Your task to perform on an android device: Go to privacy settings Image 0: 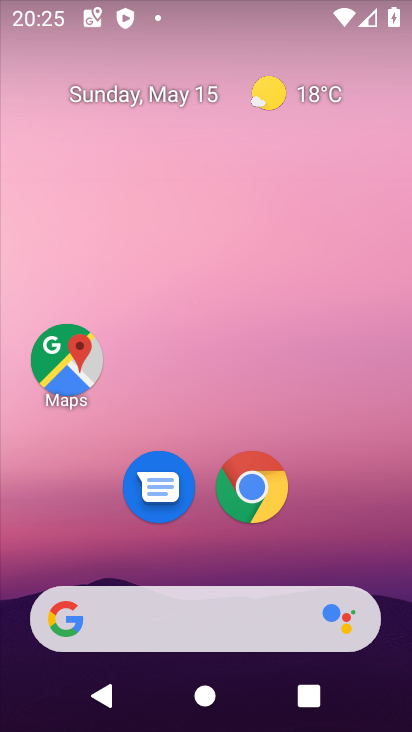
Step 0: drag from (390, 630) to (366, 283)
Your task to perform on an android device: Go to privacy settings Image 1: 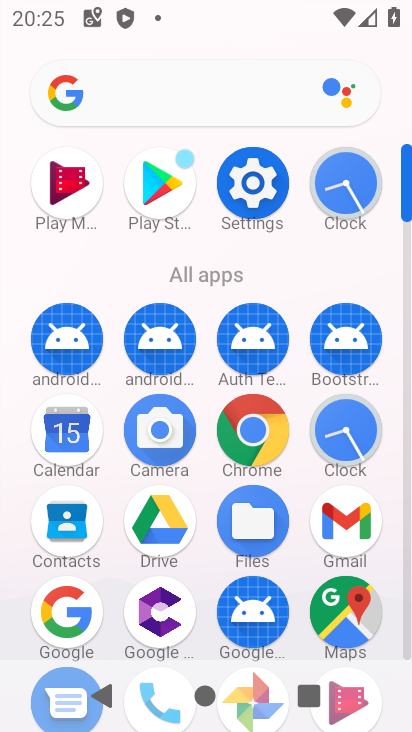
Step 1: click (256, 438)
Your task to perform on an android device: Go to privacy settings Image 2: 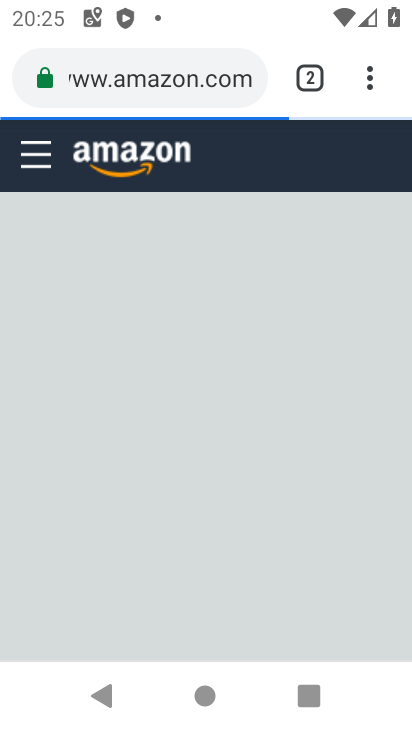
Step 2: click (364, 79)
Your task to perform on an android device: Go to privacy settings Image 3: 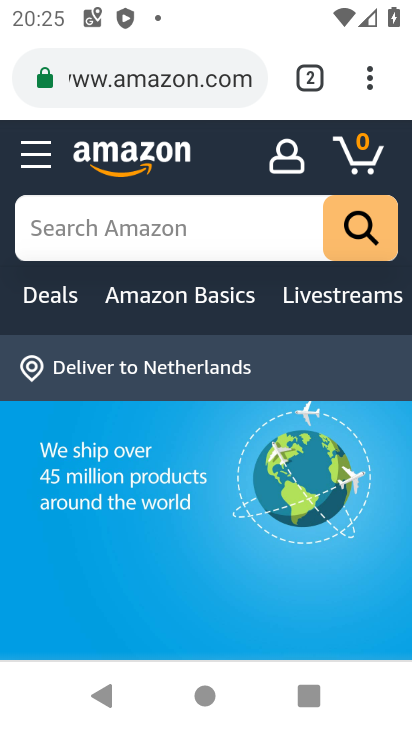
Step 3: click (371, 77)
Your task to perform on an android device: Go to privacy settings Image 4: 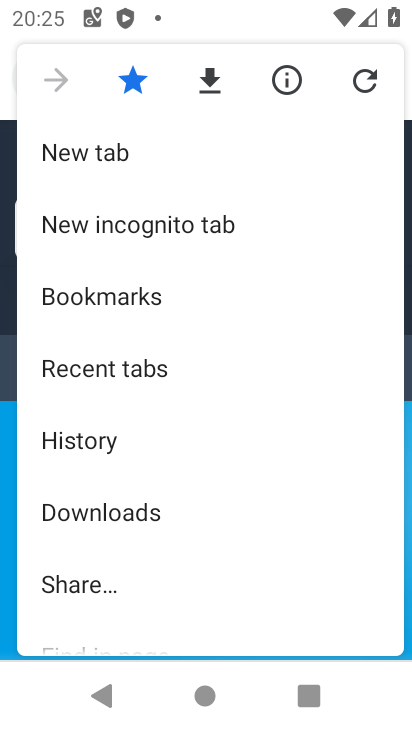
Step 4: drag from (277, 554) to (270, 289)
Your task to perform on an android device: Go to privacy settings Image 5: 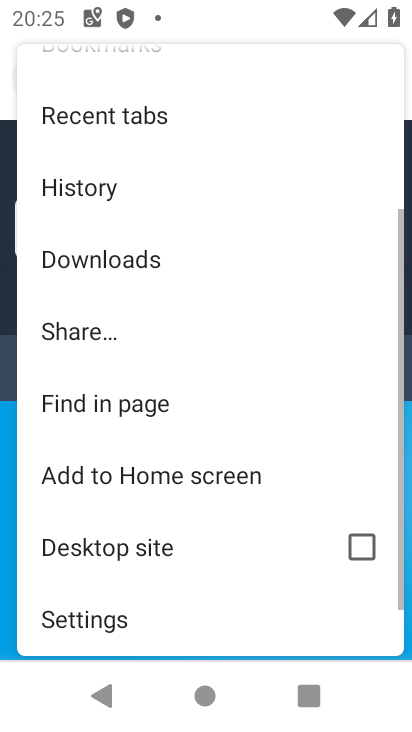
Step 5: drag from (243, 615) to (228, 358)
Your task to perform on an android device: Go to privacy settings Image 6: 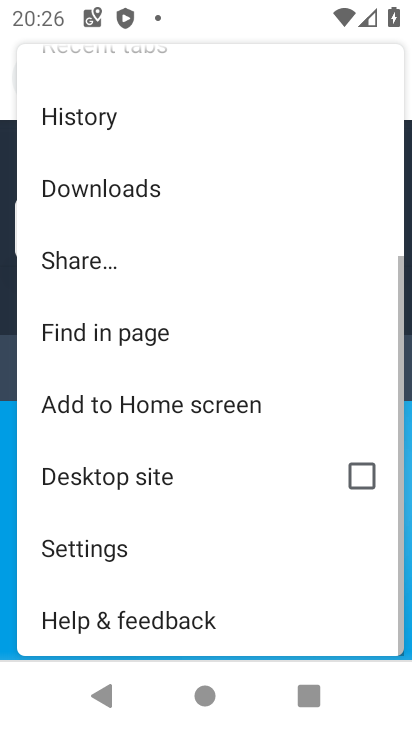
Step 6: click (70, 545)
Your task to perform on an android device: Go to privacy settings Image 7: 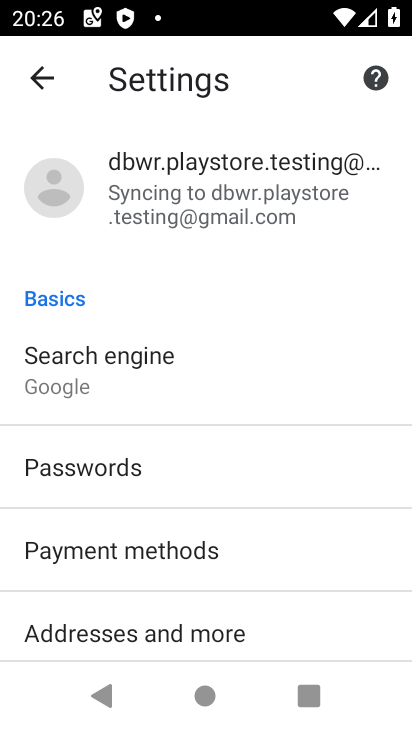
Step 7: drag from (321, 644) to (342, 459)
Your task to perform on an android device: Go to privacy settings Image 8: 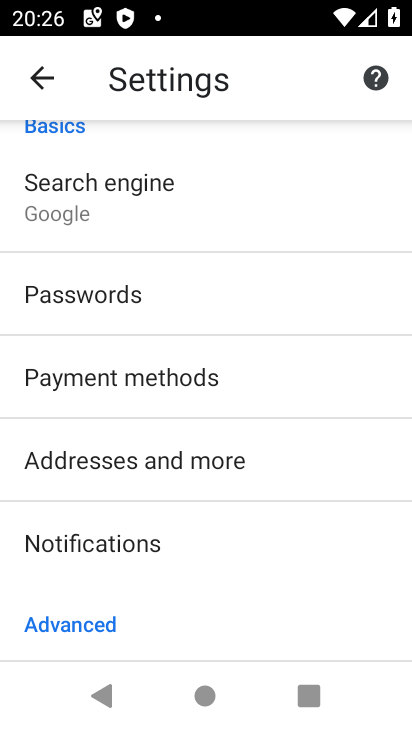
Step 8: drag from (298, 615) to (314, 450)
Your task to perform on an android device: Go to privacy settings Image 9: 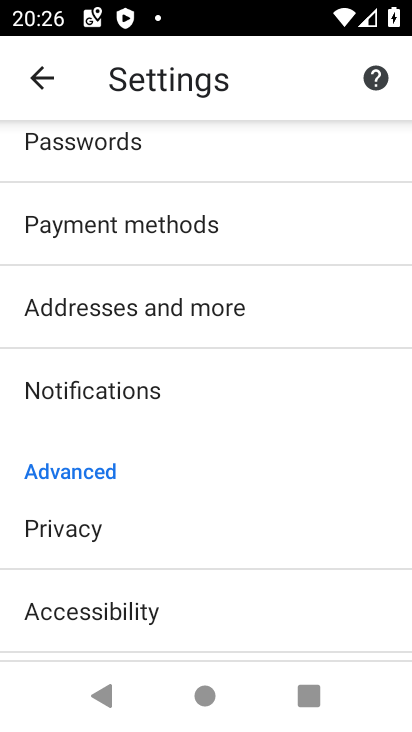
Step 9: click (72, 530)
Your task to perform on an android device: Go to privacy settings Image 10: 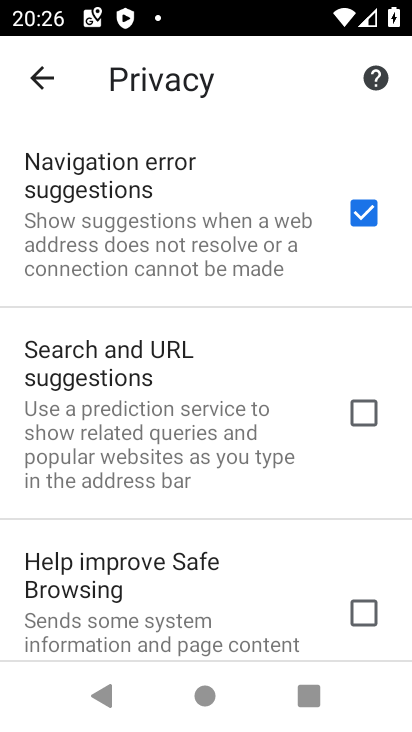
Step 10: task complete